Your task to perform on an android device: Do I have any events today? Image 0: 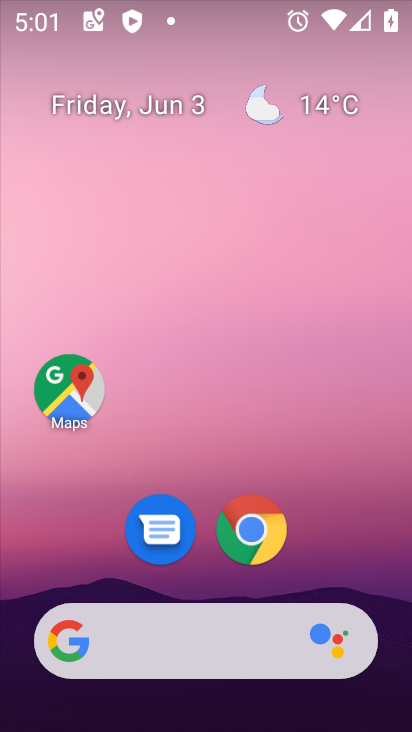
Step 0: drag from (207, 580) to (234, 112)
Your task to perform on an android device: Do I have any events today? Image 1: 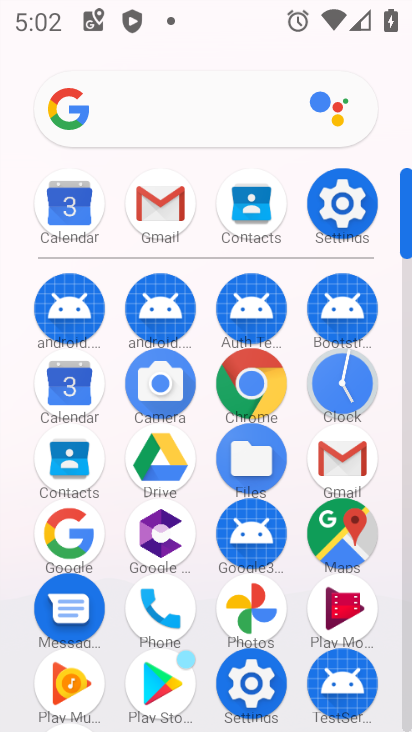
Step 1: click (65, 384)
Your task to perform on an android device: Do I have any events today? Image 2: 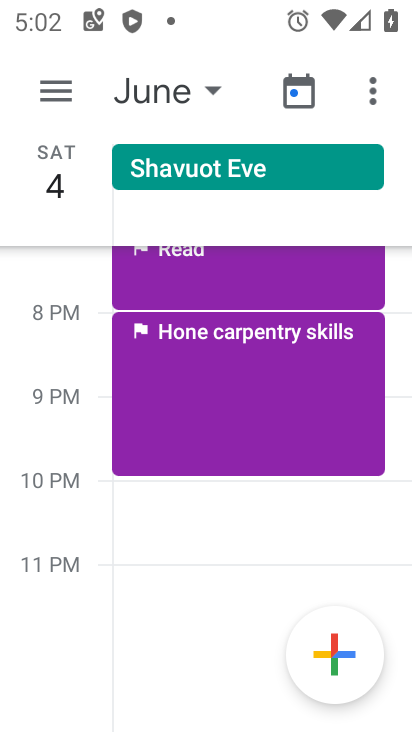
Step 2: click (76, 216)
Your task to perform on an android device: Do I have any events today? Image 3: 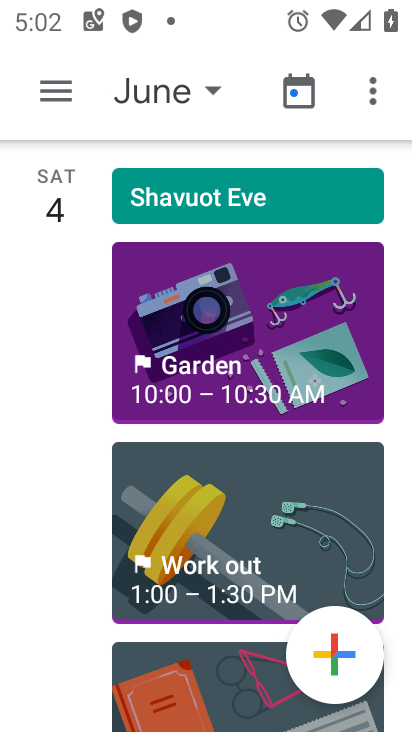
Step 3: drag from (78, 256) to (86, 507)
Your task to perform on an android device: Do I have any events today? Image 4: 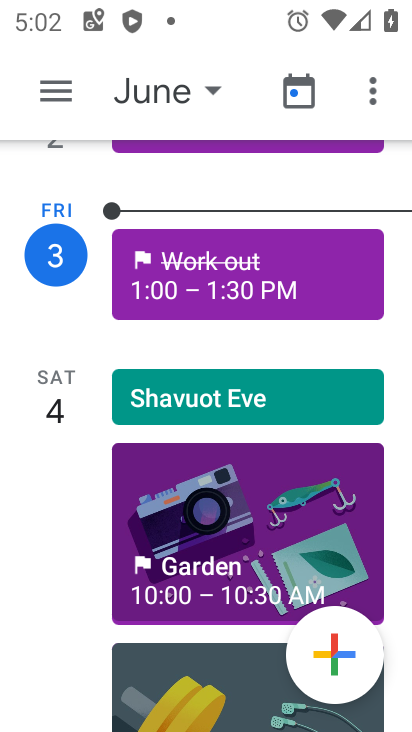
Step 4: click (74, 290)
Your task to perform on an android device: Do I have any events today? Image 5: 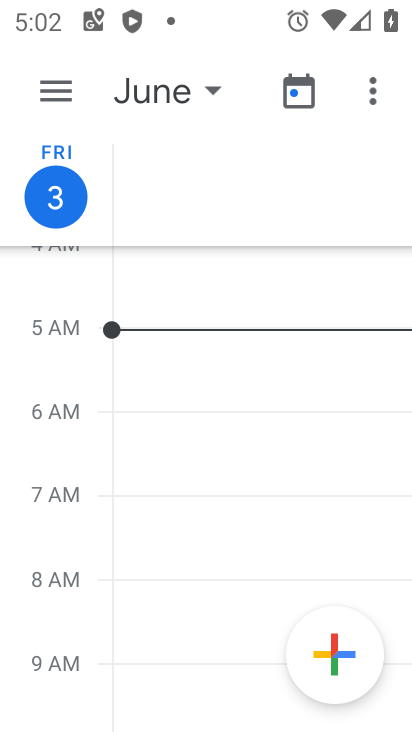
Step 5: drag from (60, 526) to (83, 299)
Your task to perform on an android device: Do I have any events today? Image 6: 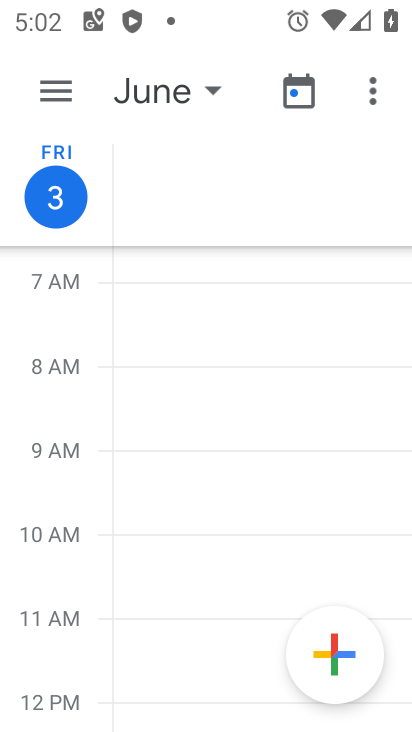
Step 6: click (86, 166)
Your task to perform on an android device: Do I have any events today? Image 7: 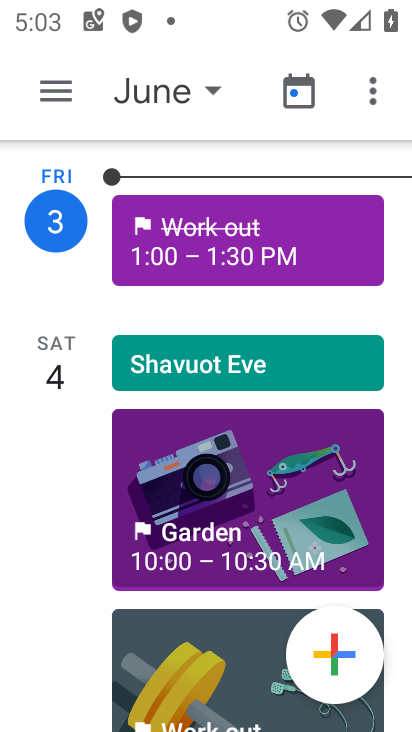
Step 7: click (51, 267)
Your task to perform on an android device: Do I have any events today? Image 8: 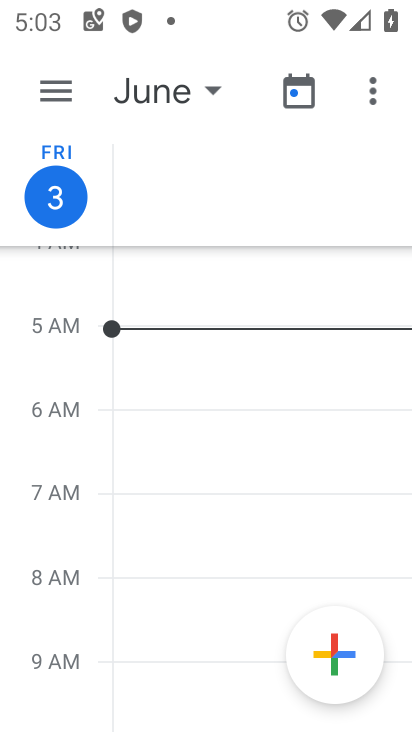
Step 8: task complete